Your task to perform on an android device: Open the Play Movies app and select the watchlist tab. Image 0: 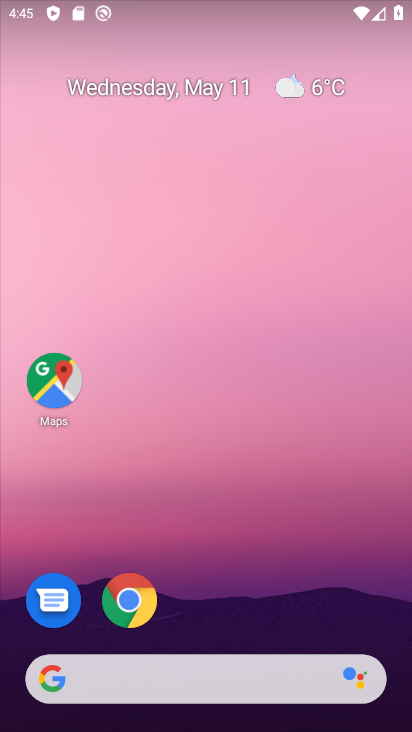
Step 0: drag from (242, 600) to (252, 35)
Your task to perform on an android device: Open the Play Movies app and select the watchlist tab. Image 1: 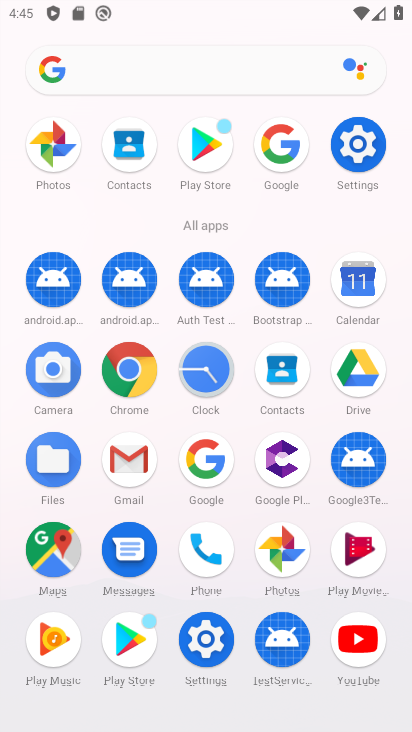
Step 1: click (365, 554)
Your task to perform on an android device: Open the Play Movies app and select the watchlist tab. Image 2: 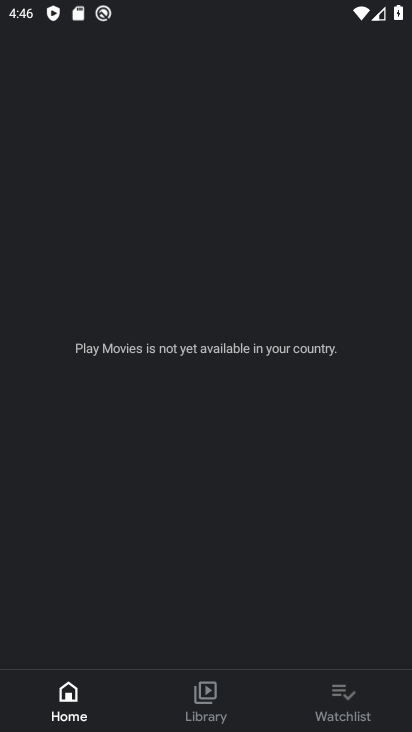
Step 2: click (346, 695)
Your task to perform on an android device: Open the Play Movies app and select the watchlist tab. Image 3: 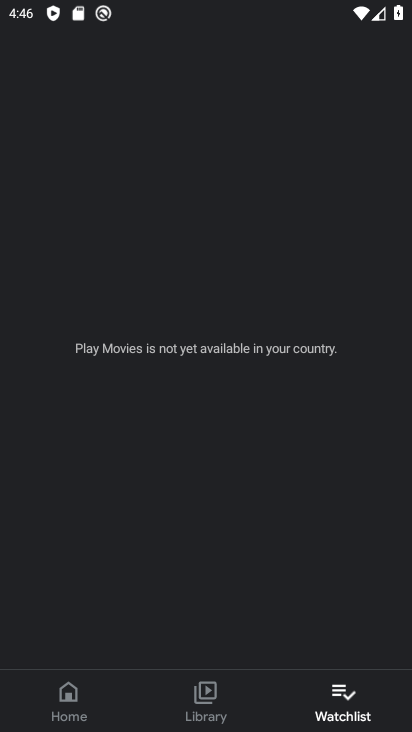
Step 3: task complete